Your task to perform on an android device: Search for the best rated 4K TV on Best Buy. Image 0: 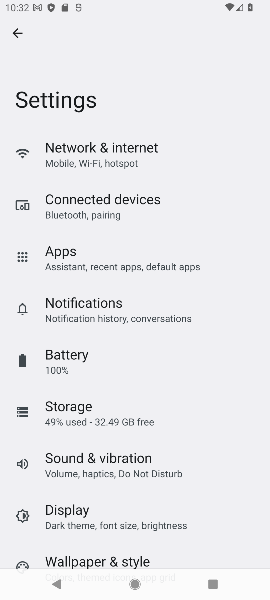
Step 0: press home button
Your task to perform on an android device: Search for the best rated 4K TV on Best Buy. Image 1: 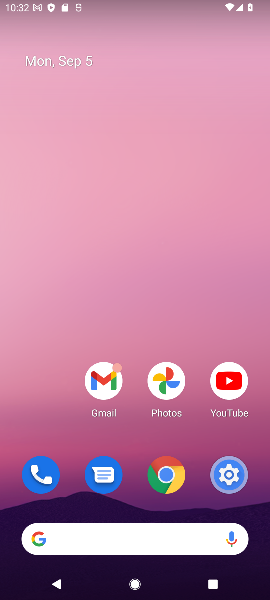
Step 1: click (134, 534)
Your task to perform on an android device: Search for the best rated 4K TV on Best Buy. Image 2: 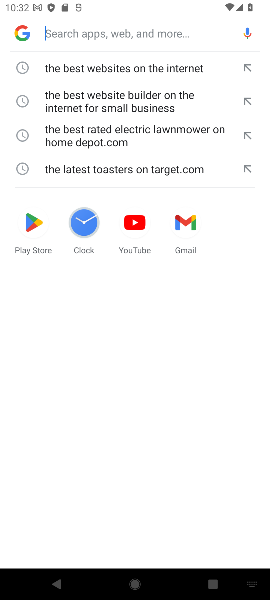
Step 2: type "the best rated 4K TV on Best Buy."
Your task to perform on an android device: Search for the best rated 4K TV on Best Buy. Image 3: 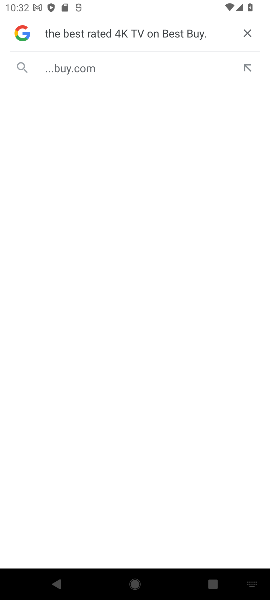
Step 3: click (79, 67)
Your task to perform on an android device: Search for the best rated 4K TV on Best Buy. Image 4: 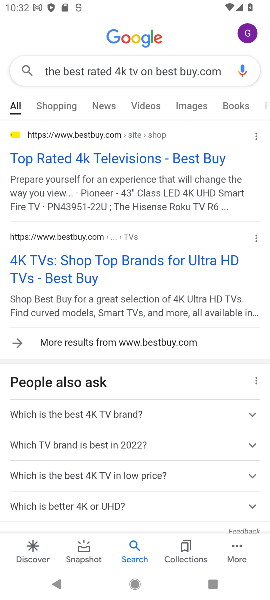
Step 4: task complete